Your task to perform on an android device: Go to eBay Image 0: 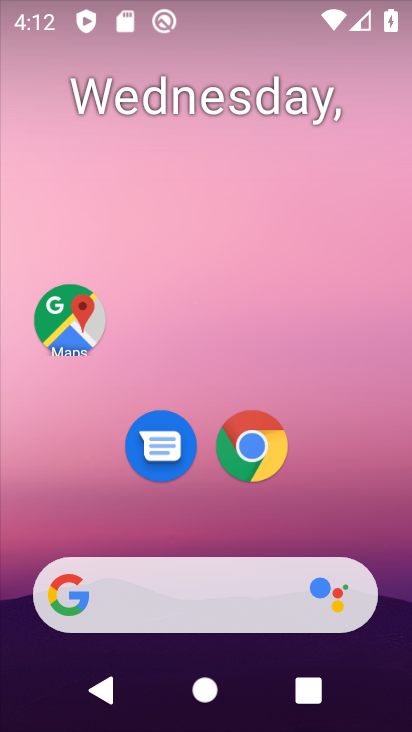
Step 0: click (248, 445)
Your task to perform on an android device: Go to eBay Image 1: 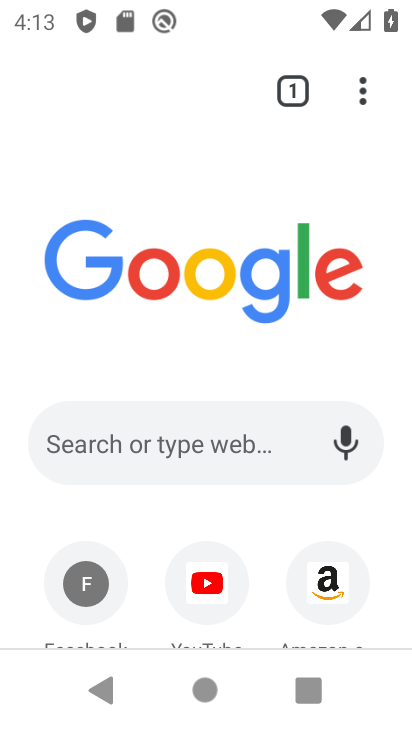
Step 1: drag from (242, 603) to (240, 350)
Your task to perform on an android device: Go to eBay Image 2: 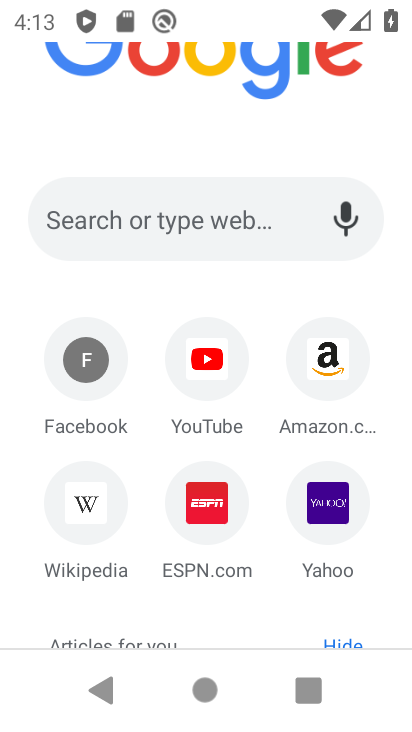
Step 2: click (181, 217)
Your task to perform on an android device: Go to eBay Image 3: 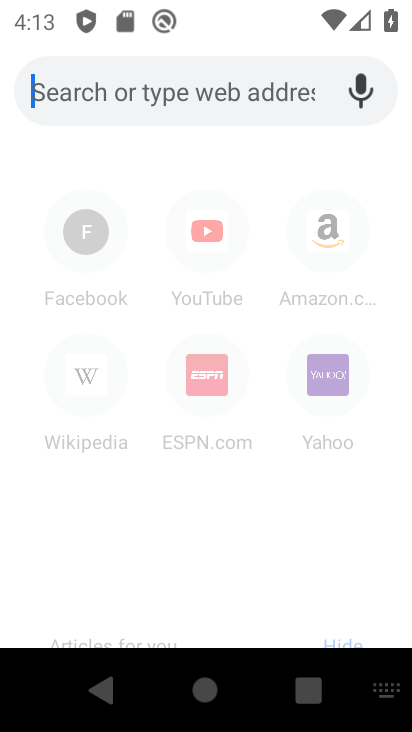
Step 3: type "eBay"
Your task to perform on an android device: Go to eBay Image 4: 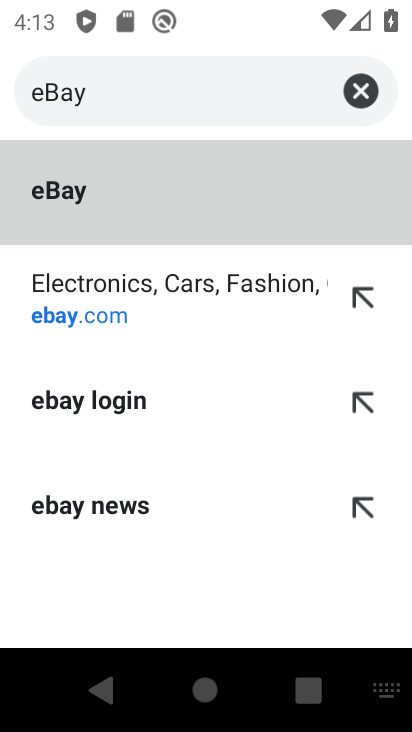
Step 4: click (95, 191)
Your task to perform on an android device: Go to eBay Image 5: 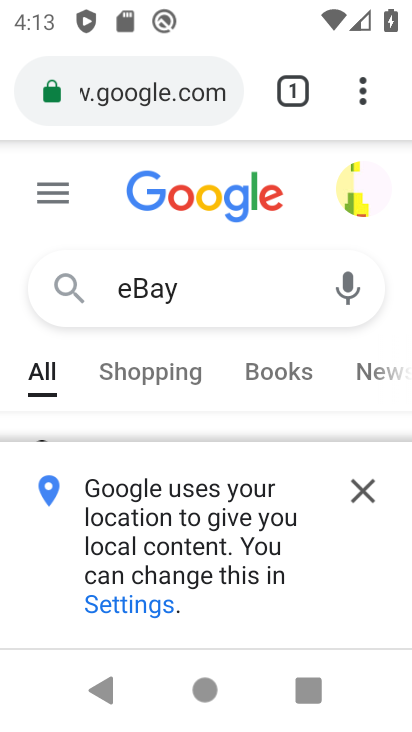
Step 5: click (367, 489)
Your task to perform on an android device: Go to eBay Image 6: 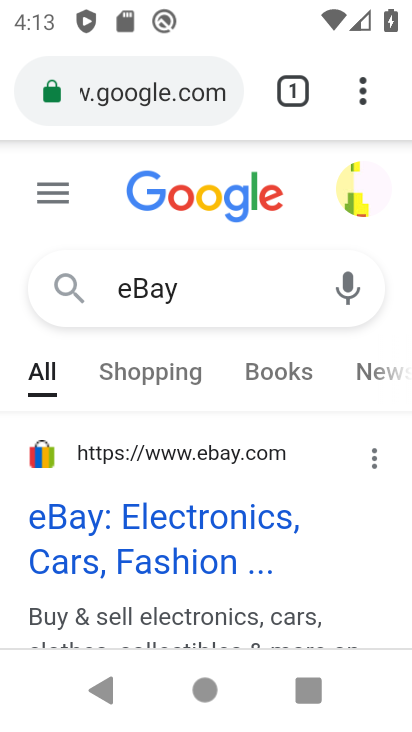
Step 6: click (125, 537)
Your task to perform on an android device: Go to eBay Image 7: 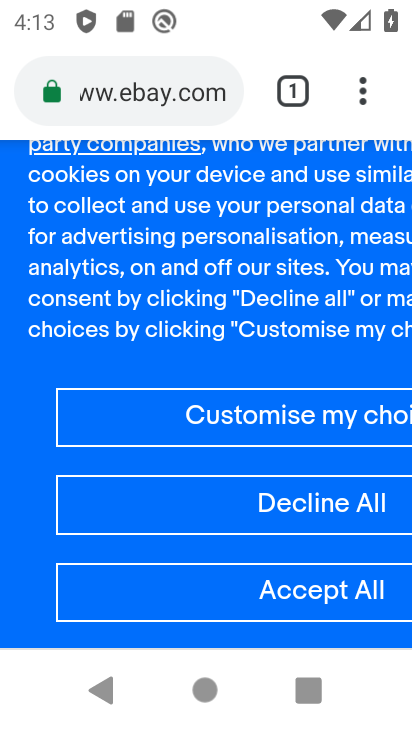
Step 7: task complete